Your task to perform on an android device: add a contact in the contacts app Image 0: 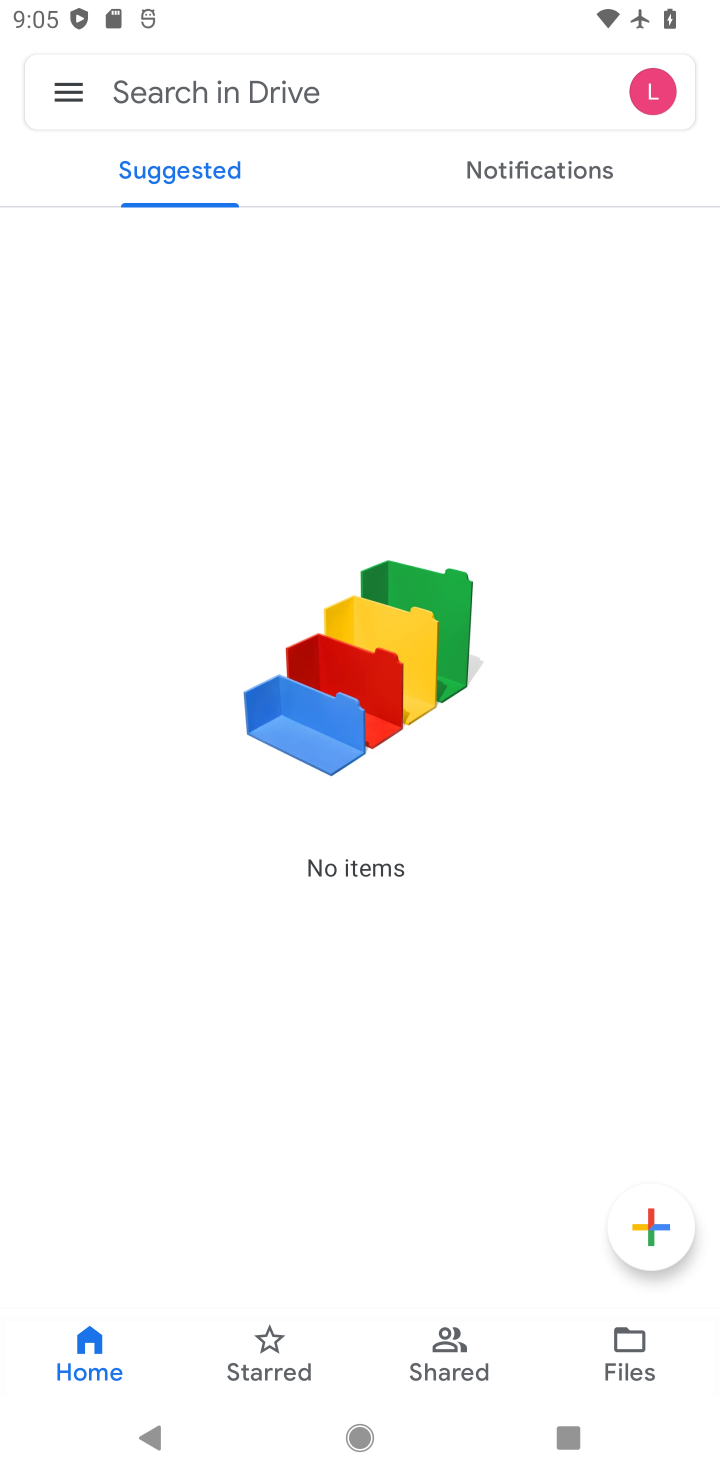
Step 0: press home button
Your task to perform on an android device: add a contact in the contacts app Image 1: 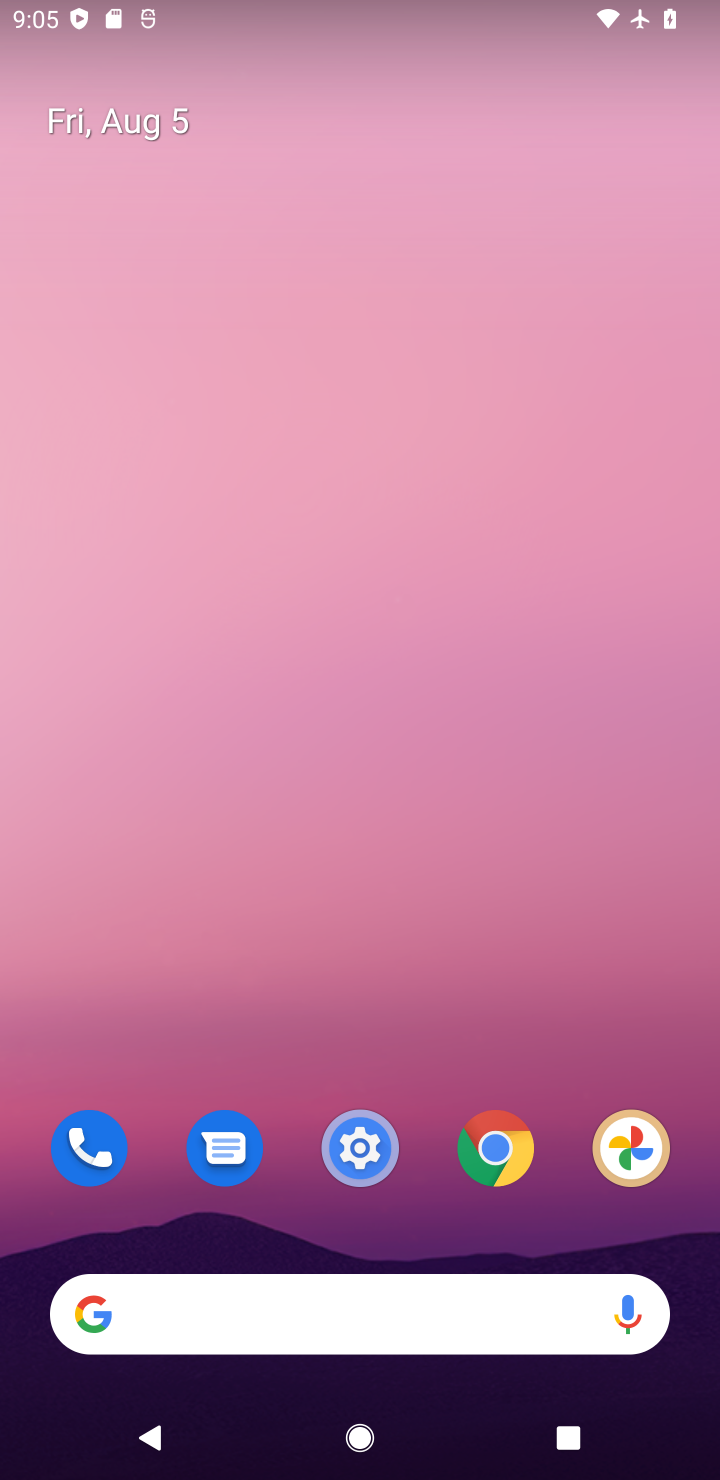
Step 1: drag from (433, 1246) to (409, 191)
Your task to perform on an android device: add a contact in the contacts app Image 2: 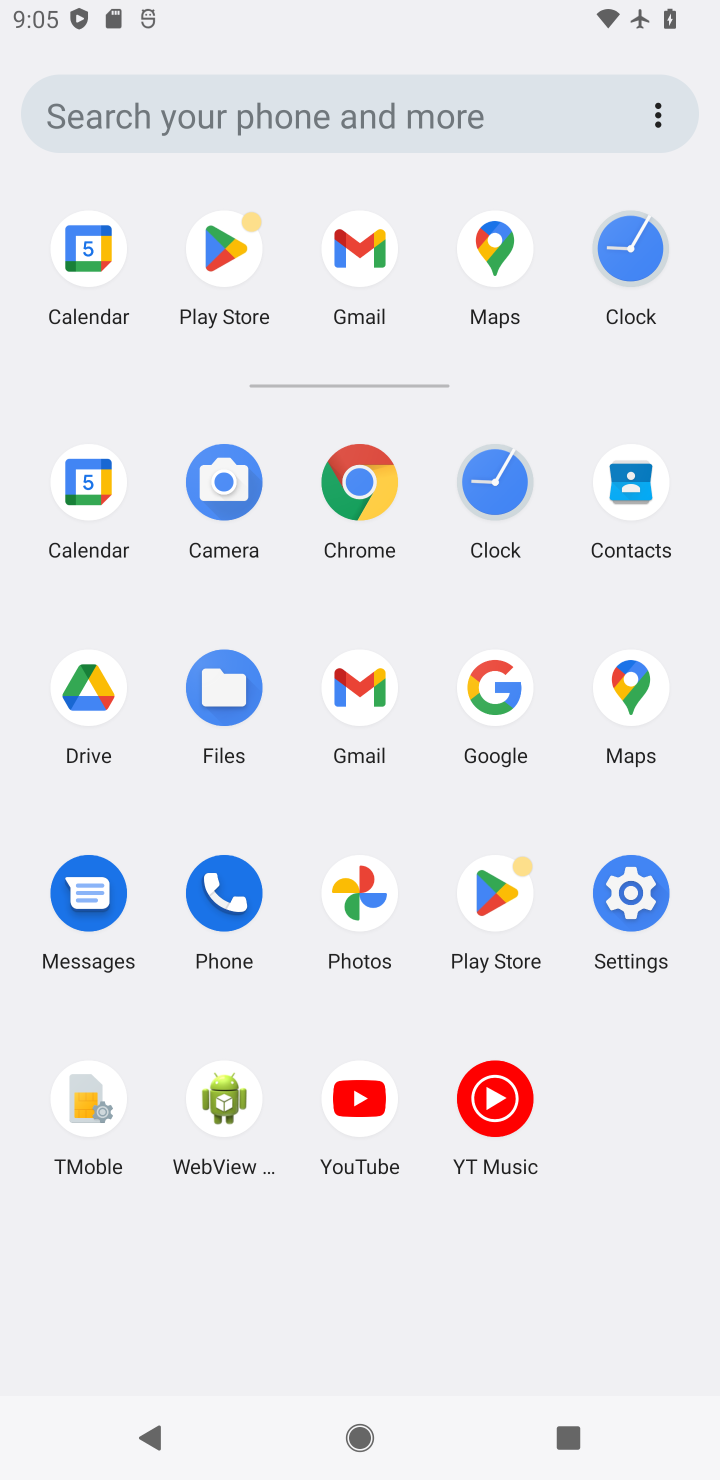
Step 2: click (630, 513)
Your task to perform on an android device: add a contact in the contacts app Image 3: 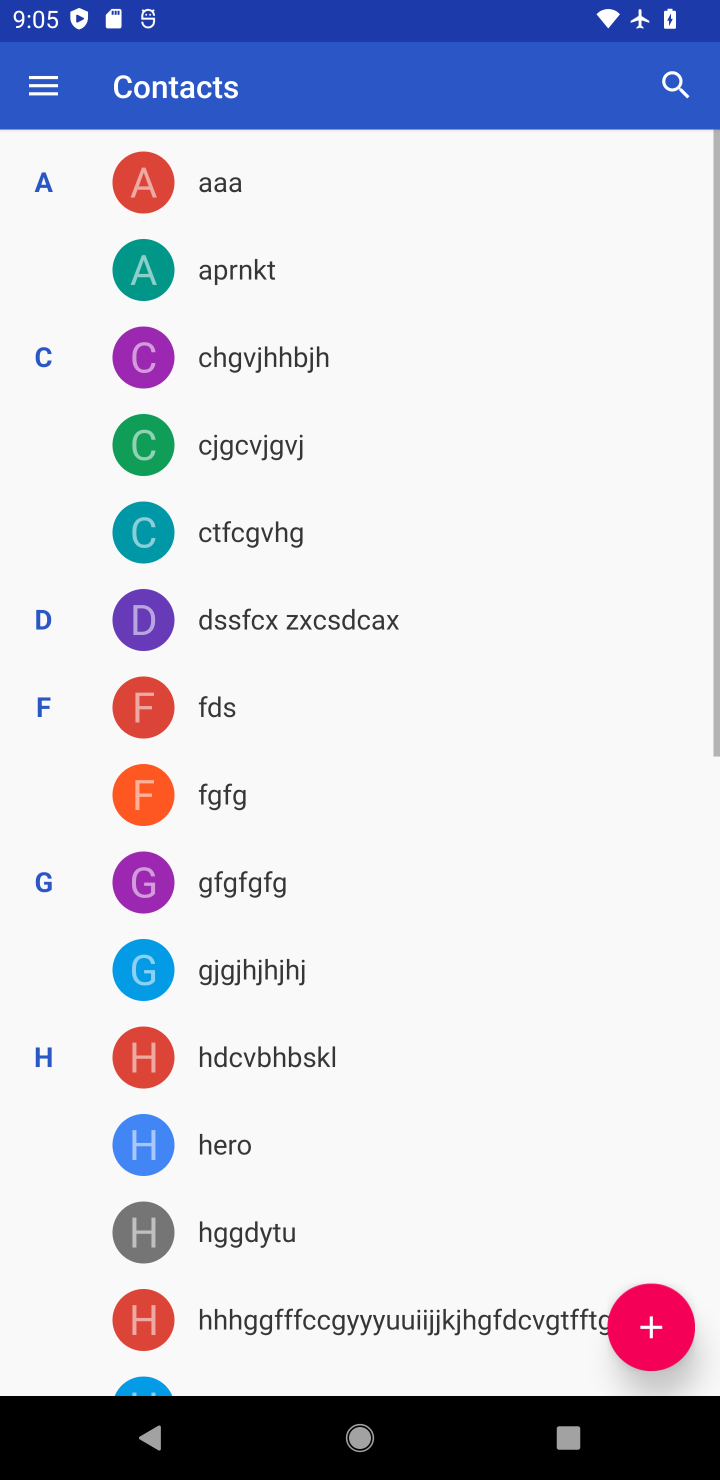
Step 3: task complete